Your task to perform on an android device: turn on showing notifications on the lock screen Image 0: 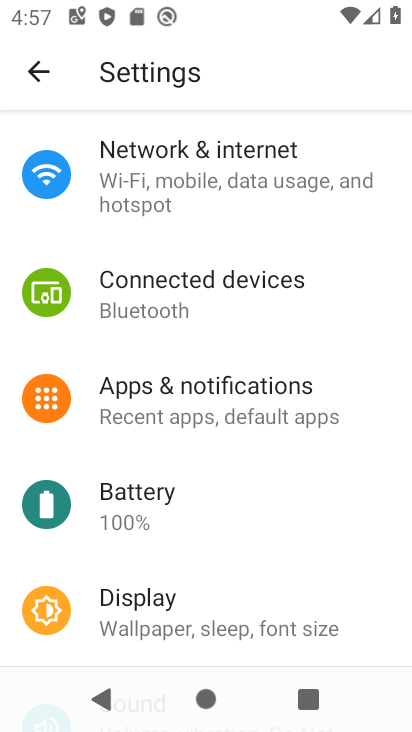
Step 0: click (208, 393)
Your task to perform on an android device: turn on showing notifications on the lock screen Image 1: 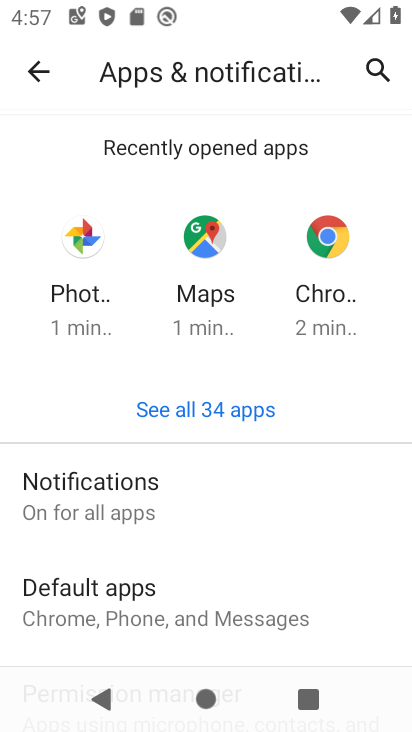
Step 1: click (121, 483)
Your task to perform on an android device: turn on showing notifications on the lock screen Image 2: 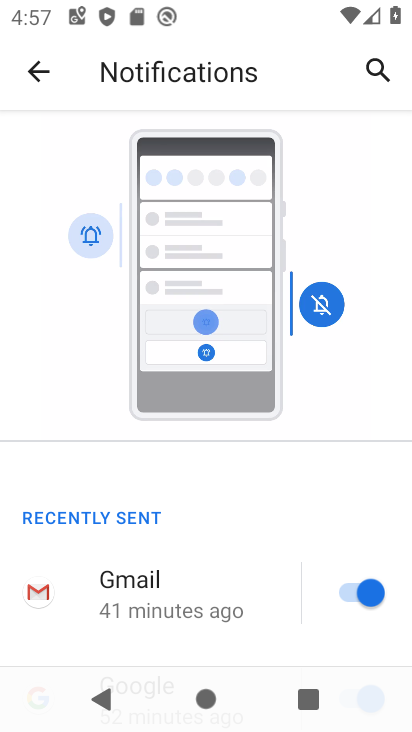
Step 2: drag from (205, 564) to (158, 284)
Your task to perform on an android device: turn on showing notifications on the lock screen Image 3: 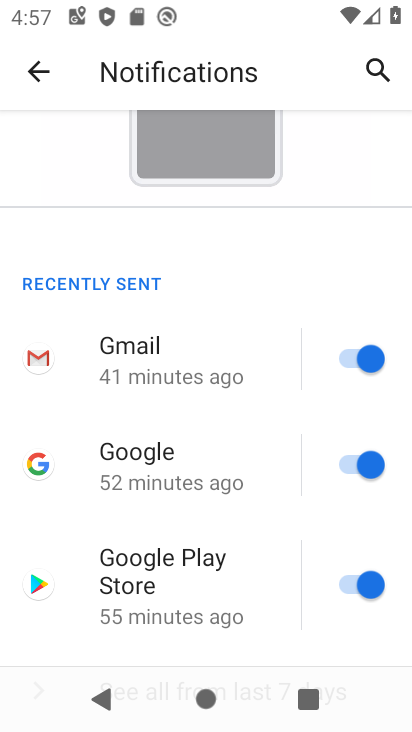
Step 3: drag from (228, 552) to (177, 207)
Your task to perform on an android device: turn on showing notifications on the lock screen Image 4: 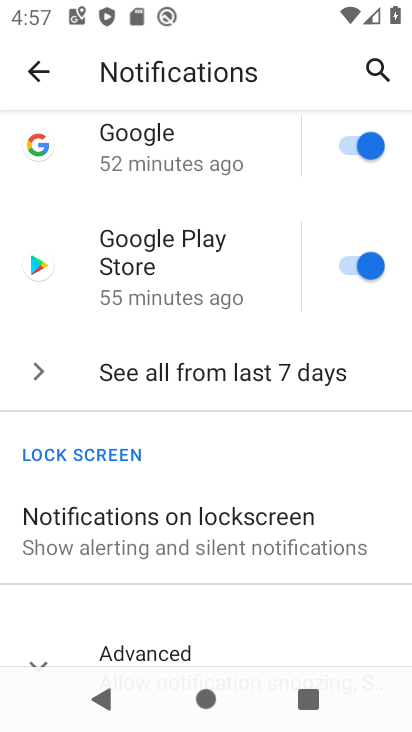
Step 4: click (168, 515)
Your task to perform on an android device: turn on showing notifications on the lock screen Image 5: 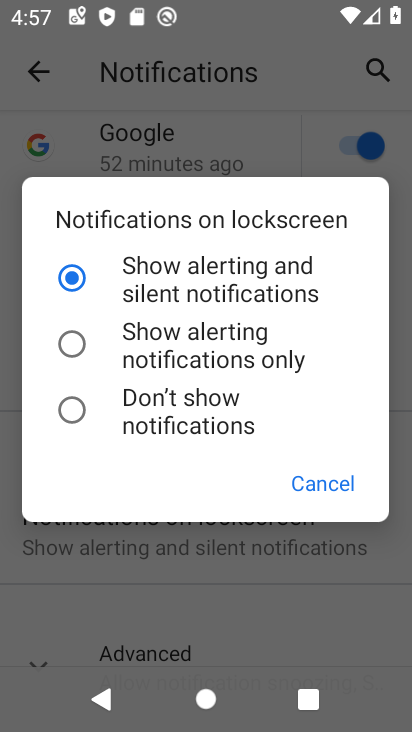
Step 5: task complete